Your task to perform on an android device: What's the weather? Image 0: 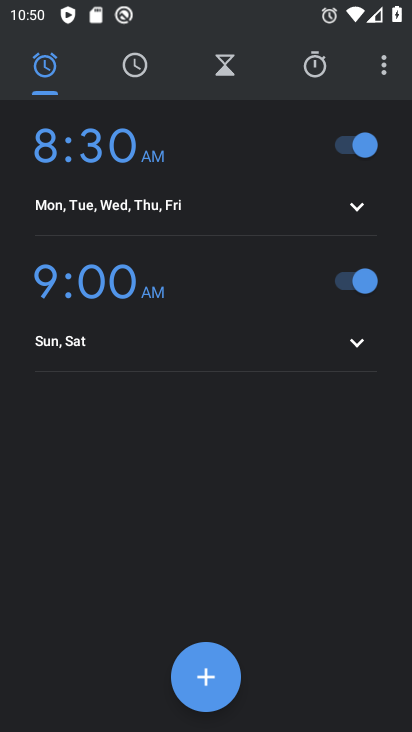
Step 0: press home button
Your task to perform on an android device: What's the weather? Image 1: 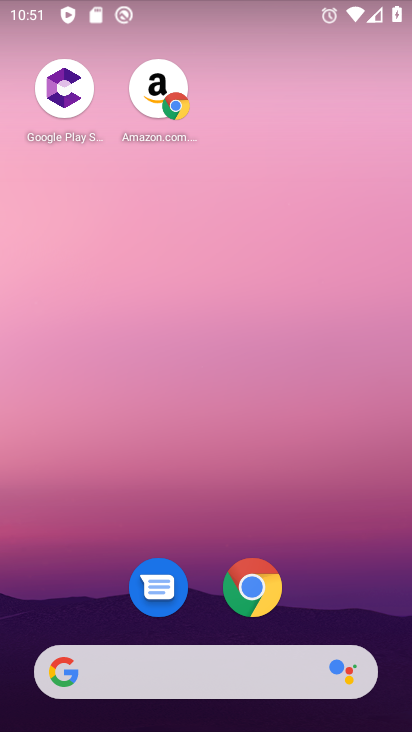
Step 1: drag from (327, 586) to (260, 18)
Your task to perform on an android device: What's the weather? Image 2: 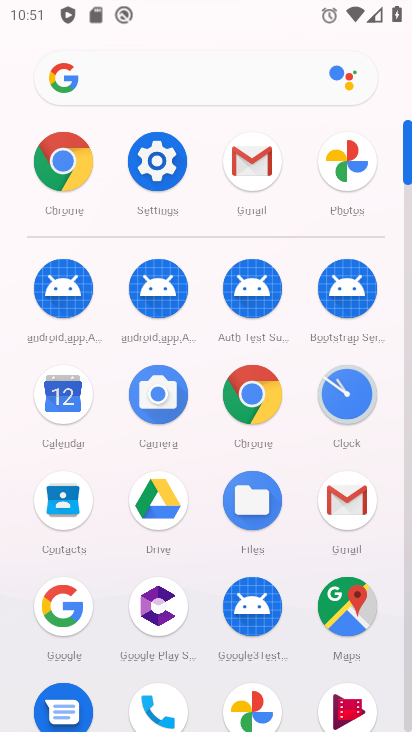
Step 2: click (75, 618)
Your task to perform on an android device: What's the weather? Image 3: 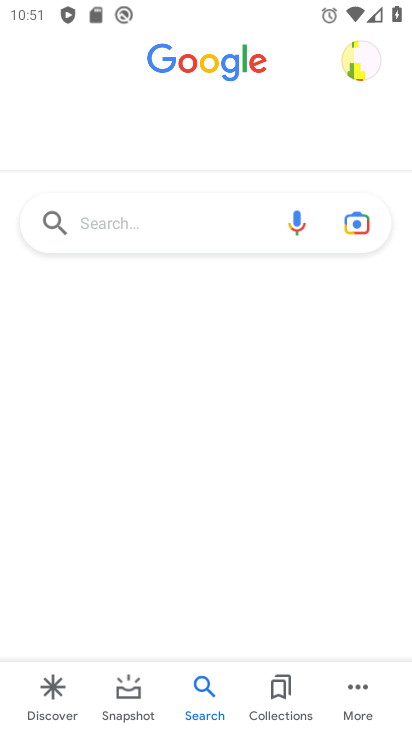
Step 3: click (152, 70)
Your task to perform on an android device: What's the weather? Image 4: 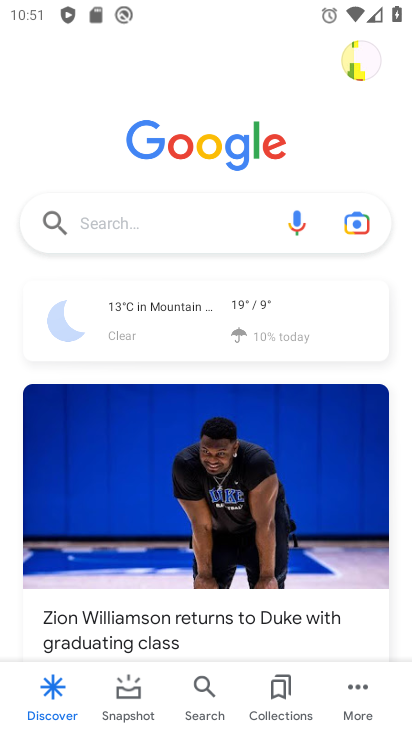
Step 4: click (291, 307)
Your task to perform on an android device: What's the weather? Image 5: 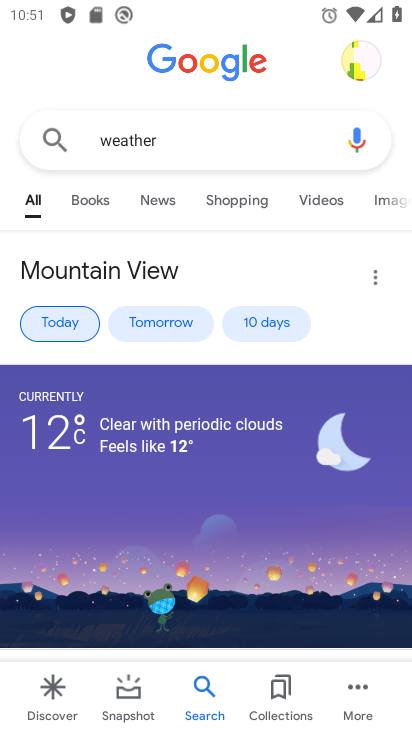
Step 5: task complete